Your task to perform on an android device: Is it going to rain today? Image 0: 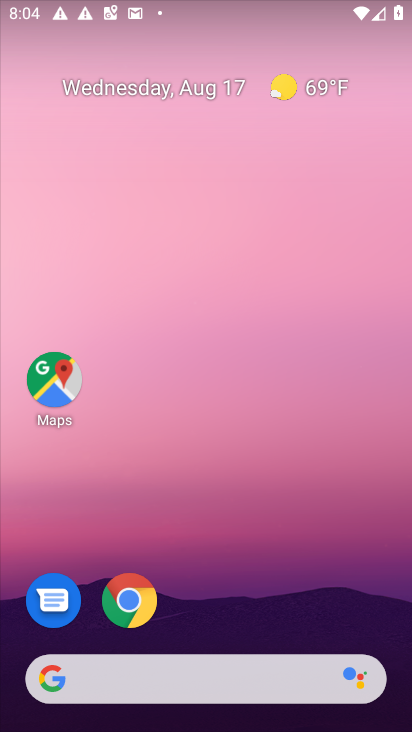
Step 0: click (52, 679)
Your task to perform on an android device: Is it going to rain today? Image 1: 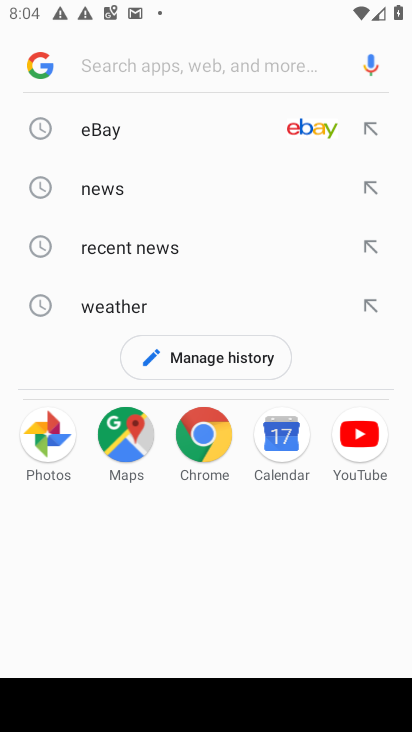
Step 1: type "Is it going to rain today?"
Your task to perform on an android device: Is it going to rain today? Image 2: 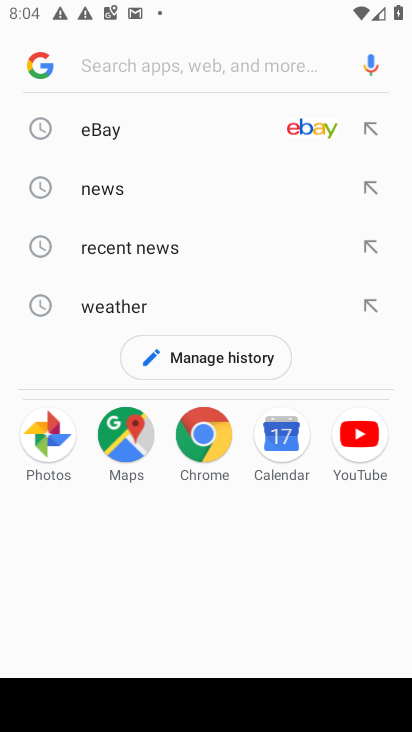
Step 2: click (115, 72)
Your task to perform on an android device: Is it going to rain today? Image 3: 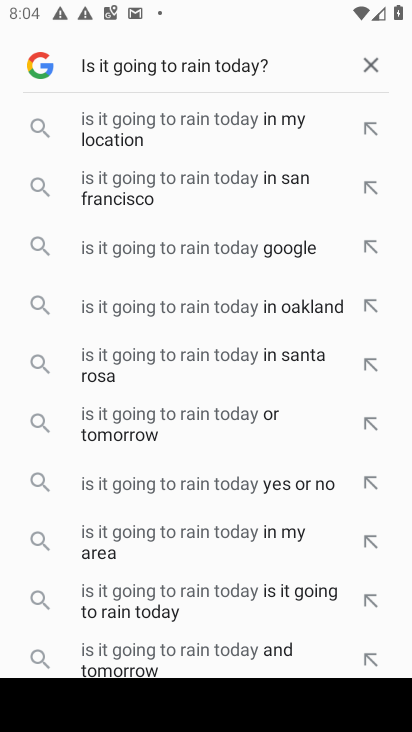
Step 3: press enter
Your task to perform on an android device: Is it going to rain today? Image 4: 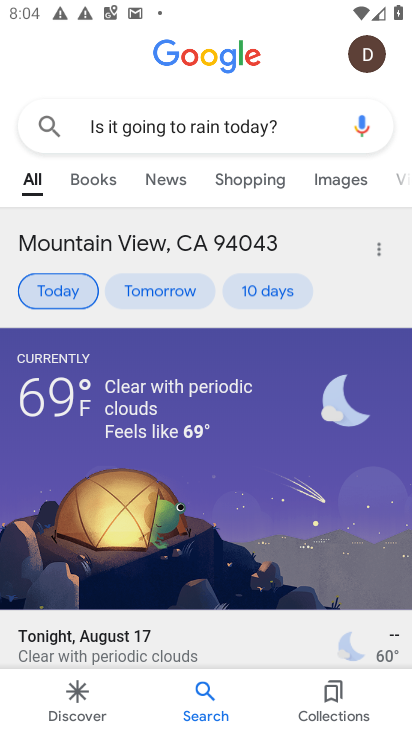
Step 4: task complete